Your task to perform on an android device: delete browsing data in the chrome app Image 0: 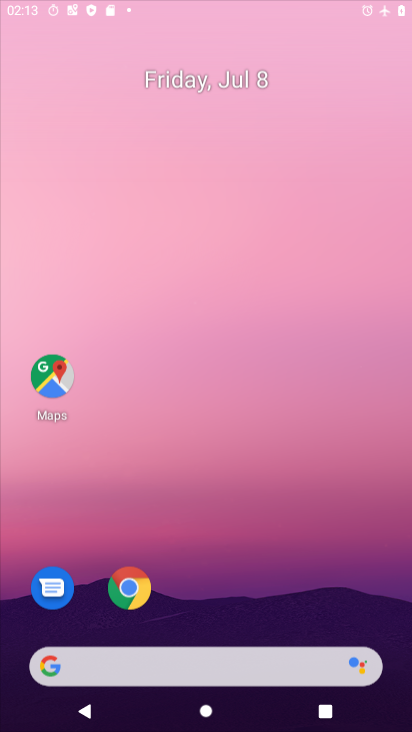
Step 0: drag from (214, 504) to (180, 4)
Your task to perform on an android device: delete browsing data in the chrome app Image 1: 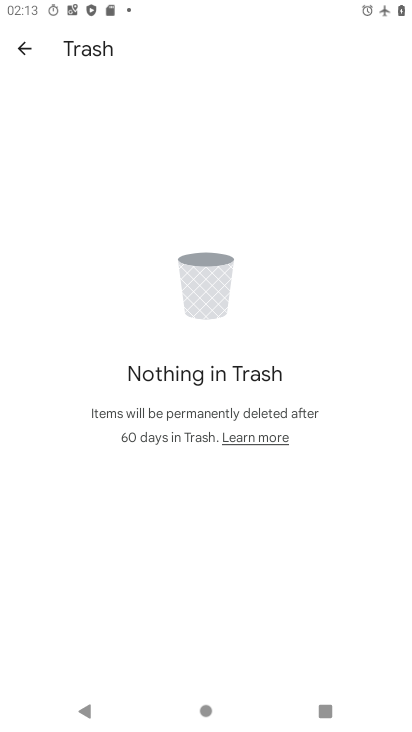
Step 1: press home button
Your task to perform on an android device: delete browsing data in the chrome app Image 2: 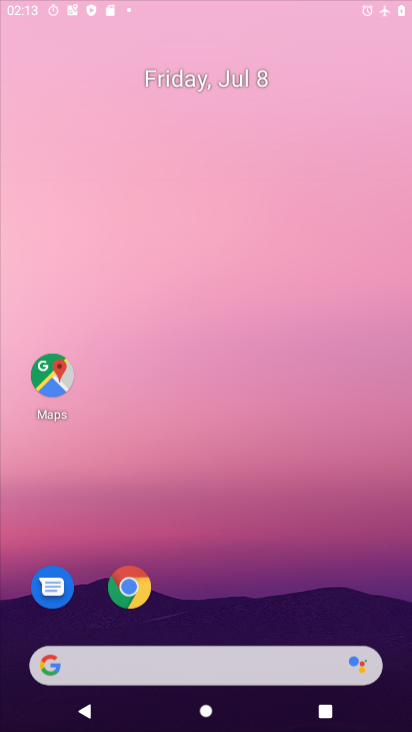
Step 2: drag from (213, 477) to (233, 104)
Your task to perform on an android device: delete browsing data in the chrome app Image 3: 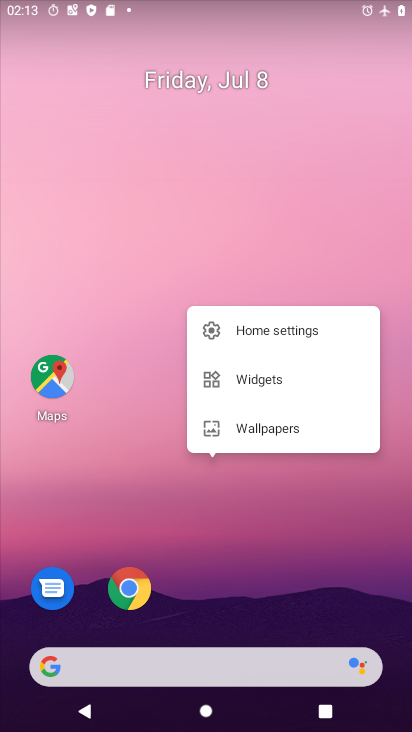
Step 3: click (201, 612)
Your task to perform on an android device: delete browsing data in the chrome app Image 4: 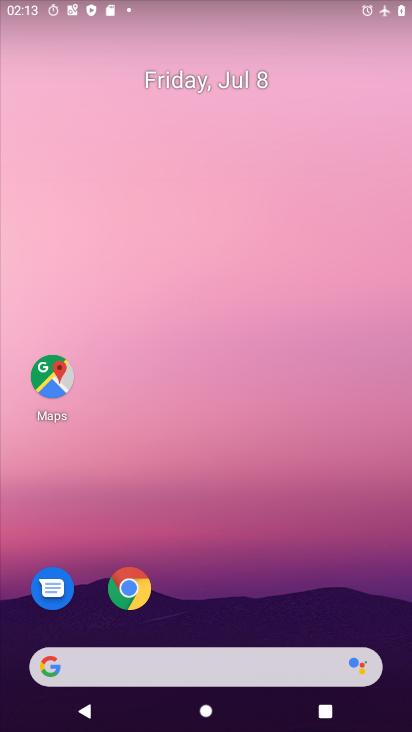
Step 4: drag from (201, 612) to (229, 156)
Your task to perform on an android device: delete browsing data in the chrome app Image 5: 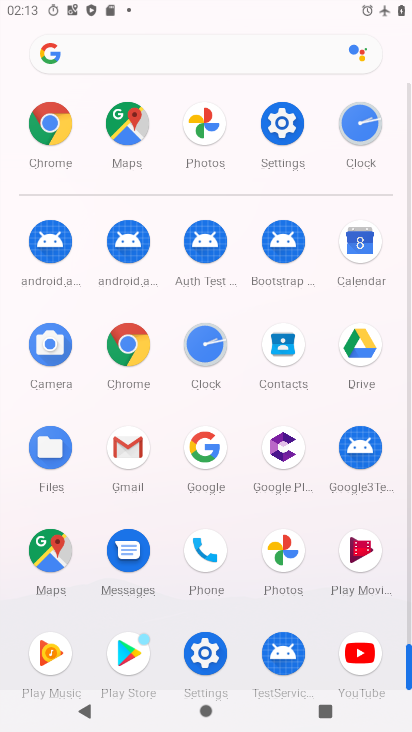
Step 5: click (120, 342)
Your task to perform on an android device: delete browsing data in the chrome app Image 6: 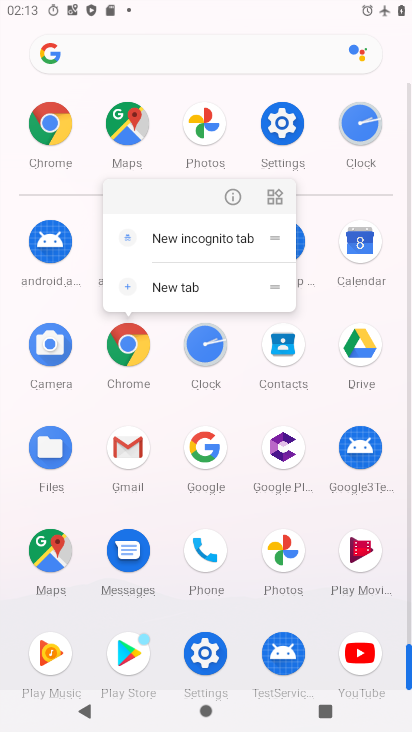
Step 6: click (228, 188)
Your task to perform on an android device: delete browsing data in the chrome app Image 7: 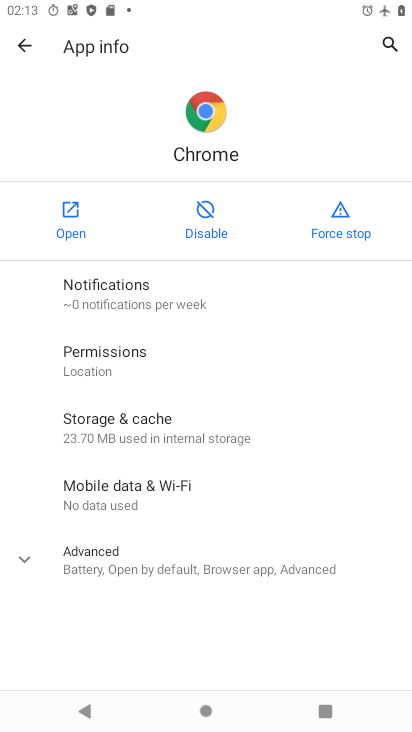
Step 7: click (58, 216)
Your task to perform on an android device: delete browsing data in the chrome app Image 8: 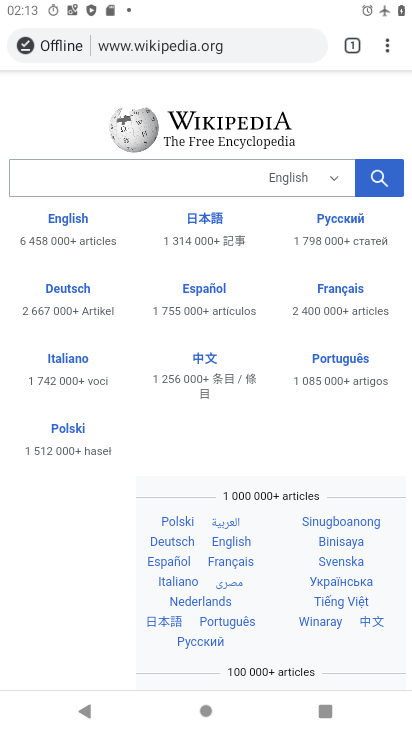
Step 8: click (381, 38)
Your task to perform on an android device: delete browsing data in the chrome app Image 9: 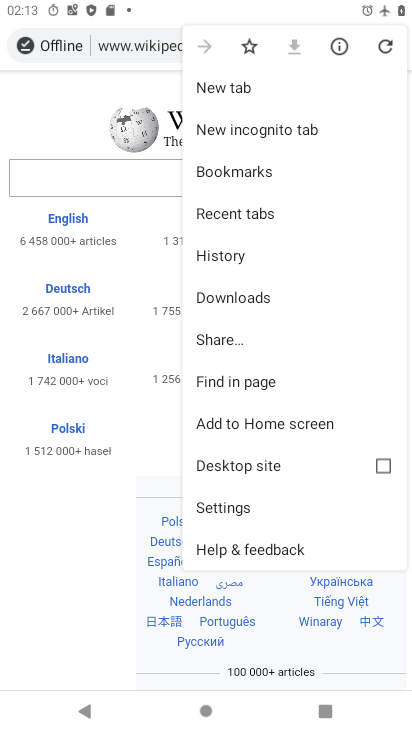
Step 9: click (216, 251)
Your task to perform on an android device: delete browsing data in the chrome app Image 10: 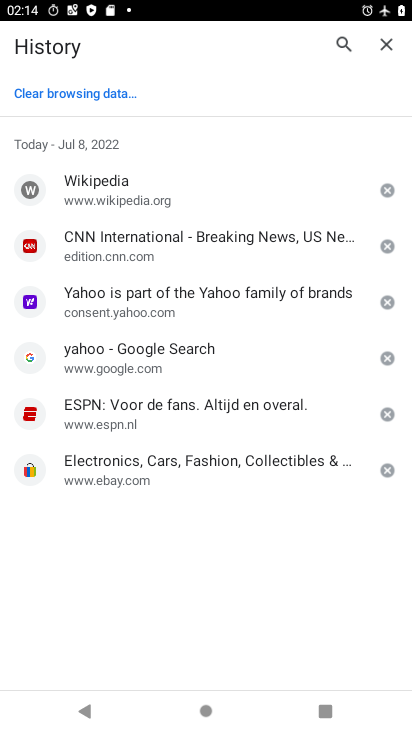
Step 10: click (26, 95)
Your task to perform on an android device: delete browsing data in the chrome app Image 11: 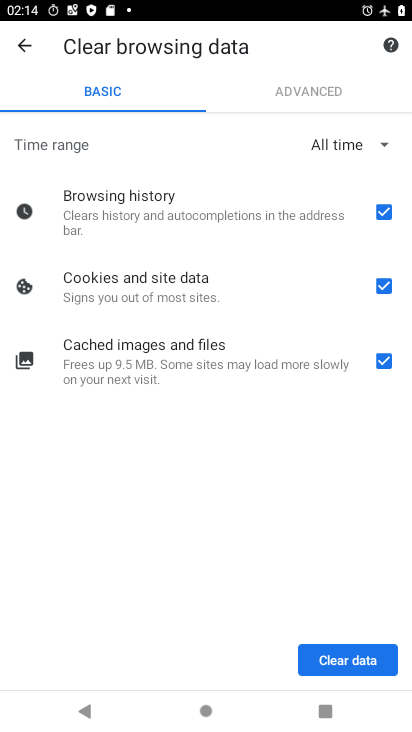
Step 11: click (347, 652)
Your task to perform on an android device: delete browsing data in the chrome app Image 12: 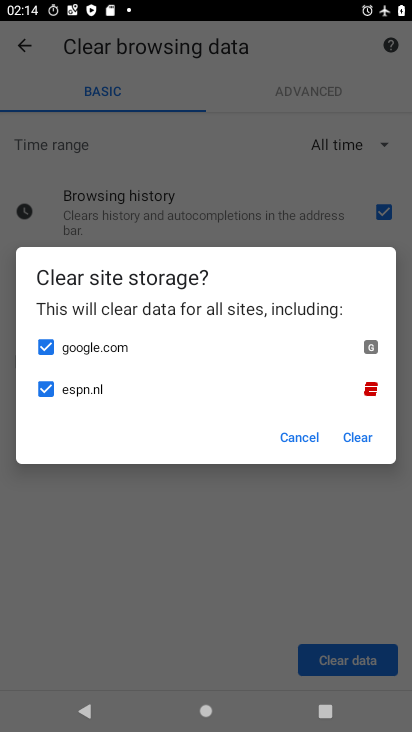
Step 12: click (359, 436)
Your task to perform on an android device: delete browsing data in the chrome app Image 13: 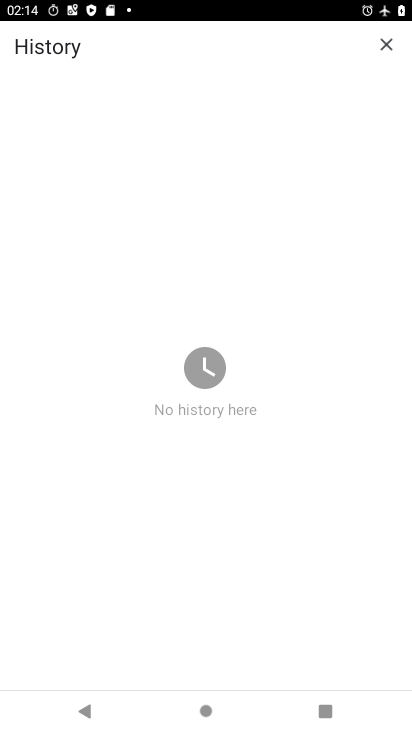
Step 13: task complete